Your task to perform on an android device: move an email to a new category in the gmail app Image 0: 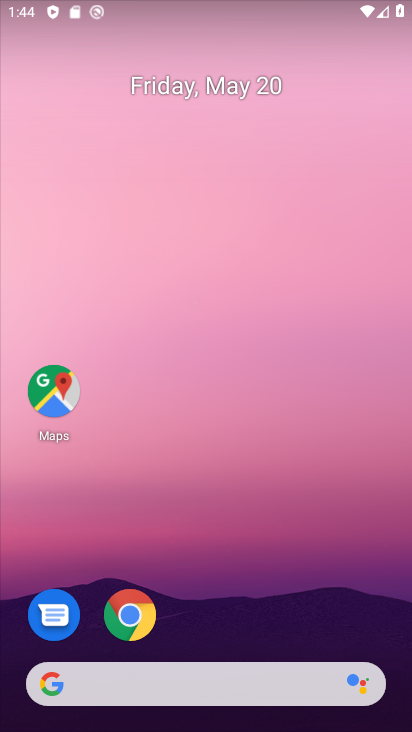
Step 0: drag from (242, 584) to (247, 316)
Your task to perform on an android device: move an email to a new category in the gmail app Image 1: 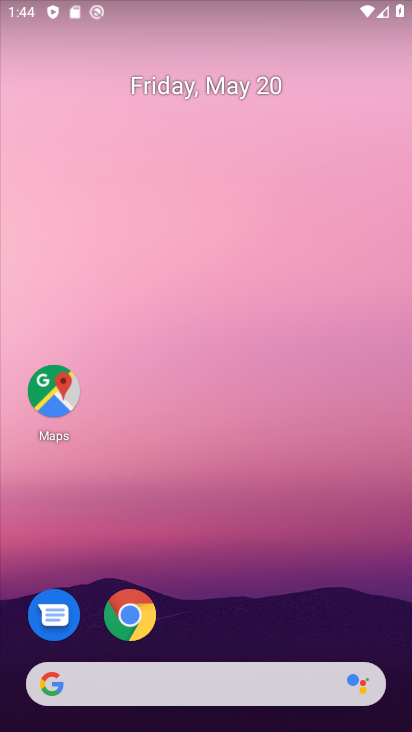
Step 1: click (286, 538)
Your task to perform on an android device: move an email to a new category in the gmail app Image 2: 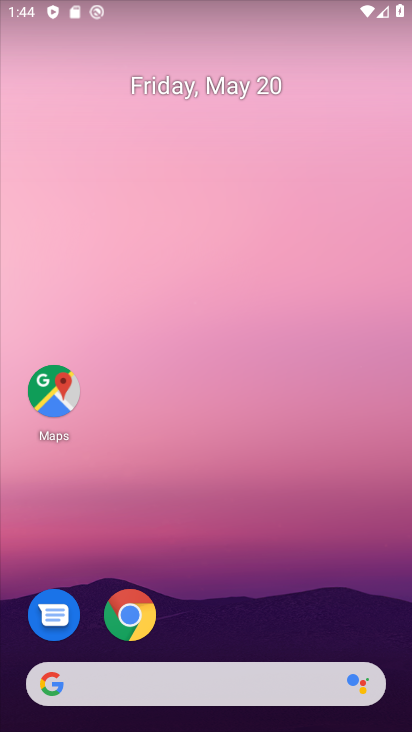
Step 2: drag from (245, 664) to (245, 366)
Your task to perform on an android device: move an email to a new category in the gmail app Image 3: 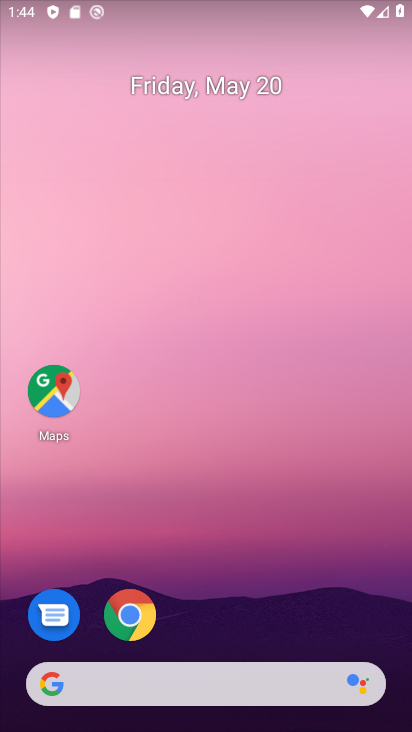
Step 3: drag from (229, 567) to (201, 246)
Your task to perform on an android device: move an email to a new category in the gmail app Image 4: 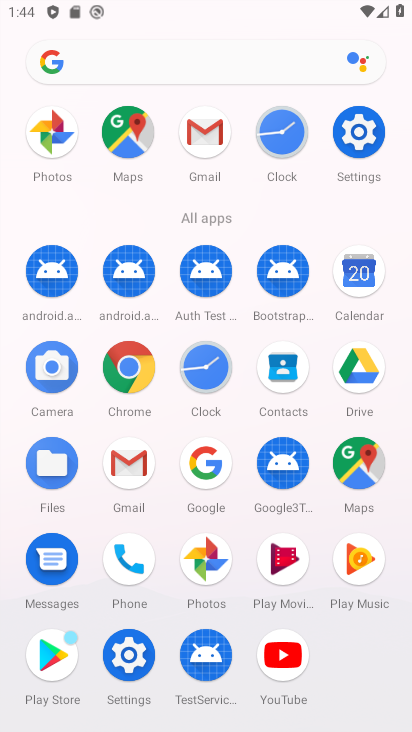
Step 4: click (190, 125)
Your task to perform on an android device: move an email to a new category in the gmail app Image 5: 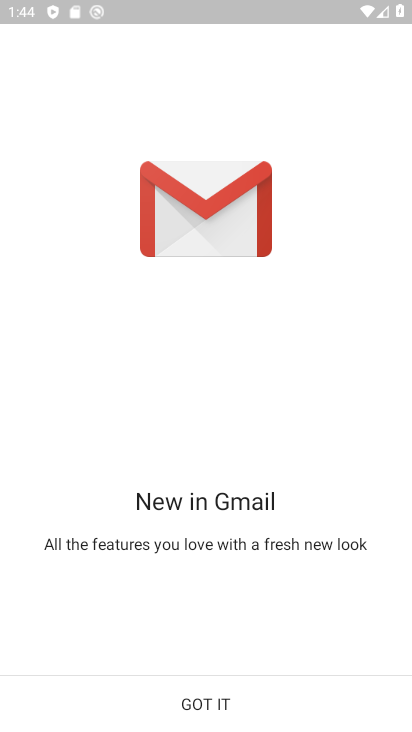
Step 5: click (218, 694)
Your task to perform on an android device: move an email to a new category in the gmail app Image 6: 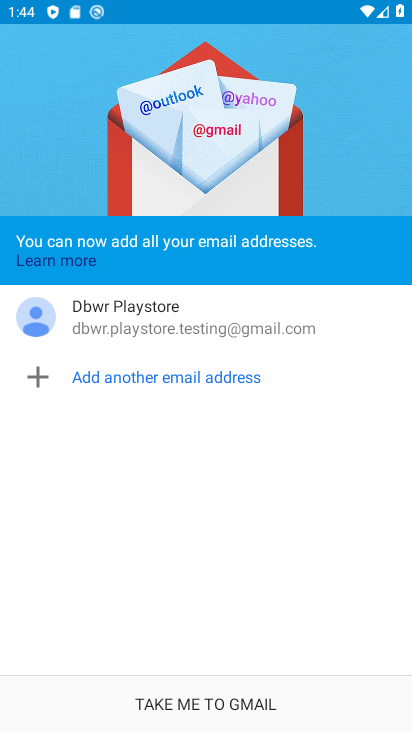
Step 6: click (219, 695)
Your task to perform on an android device: move an email to a new category in the gmail app Image 7: 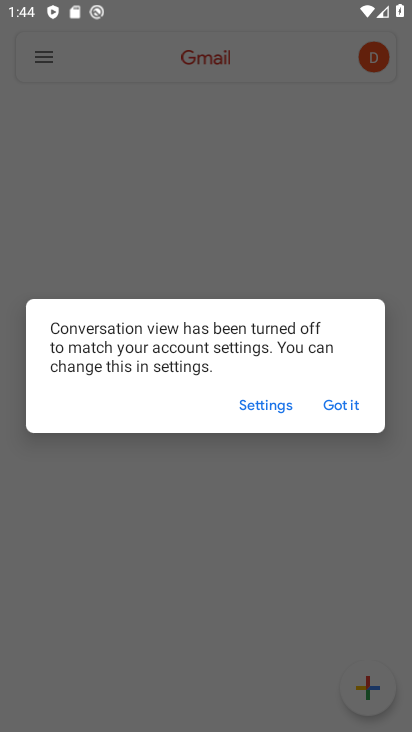
Step 7: click (339, 399)
Your task to perform on an android device: move an email to a new category in the gmail app Image 8: 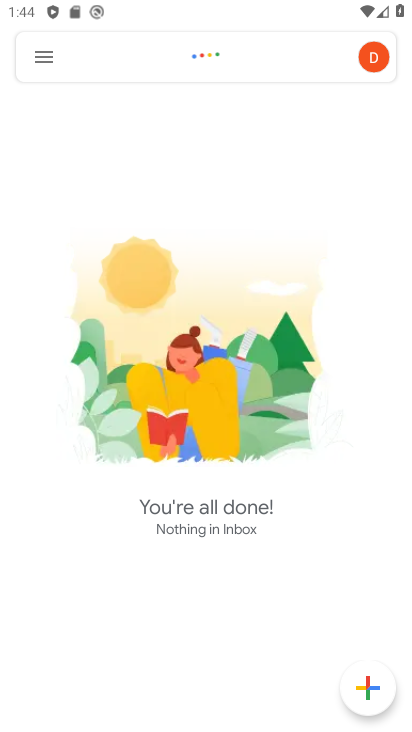
Step 8: click (39, 52)
Your task to perform on an android device: move an email to a new category in the gmail app Image 9: 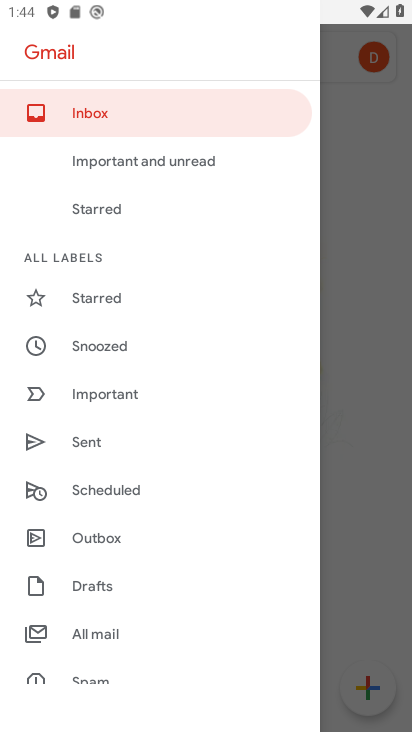
Step 9: click (100, 634)
Your task to perform on an android device: move an email to a new category in the gmail app Image 10: 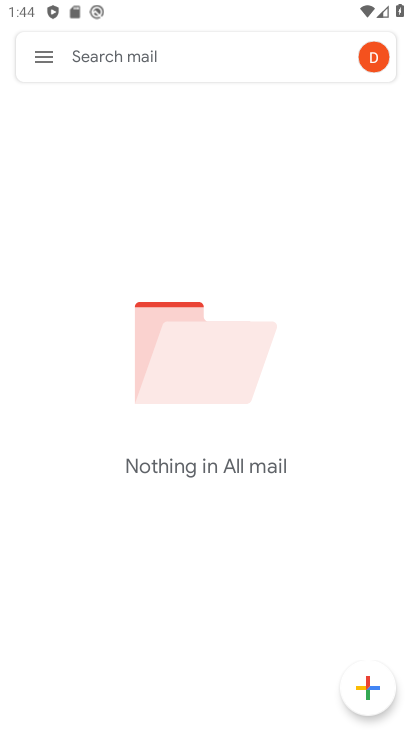
Step 10: task complete